Your task to perform on an android device: install app "Instagram" Image 0: 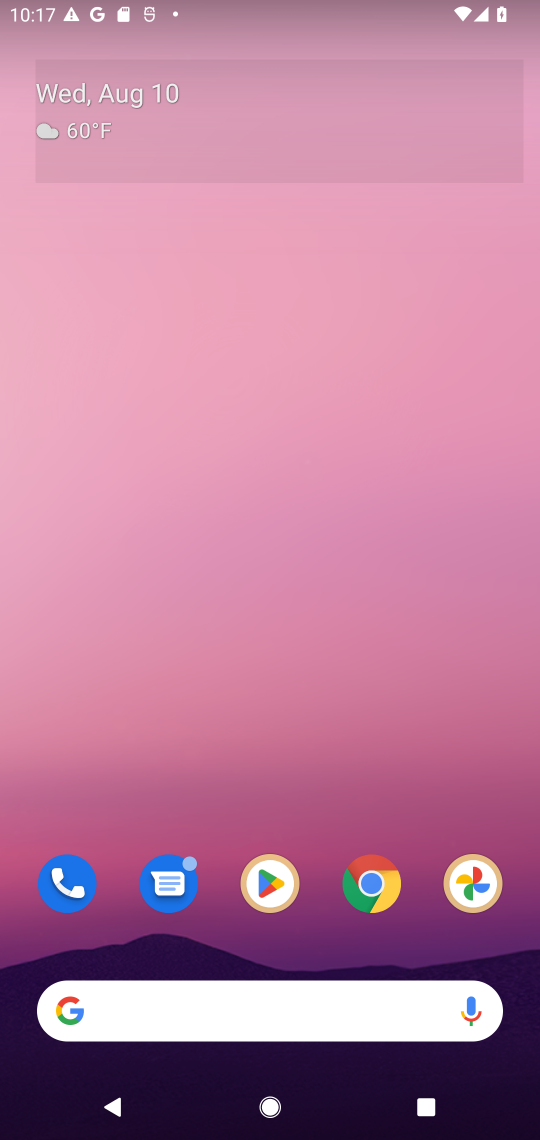
Step 0: drag from (400, 697) to (389, 95)
Your task to perform on an android device: install app "Instagram" Image 1: 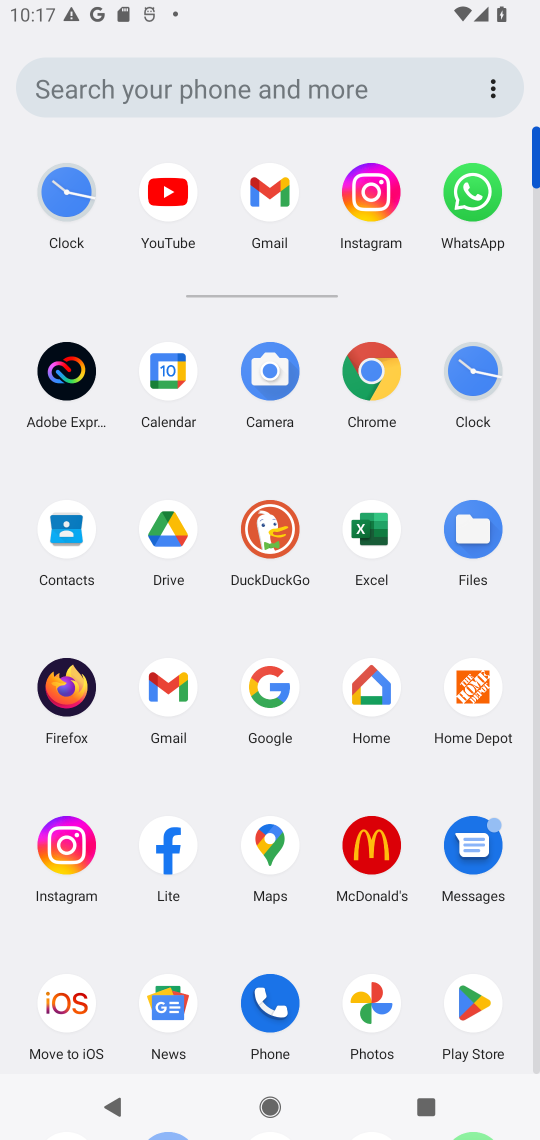
Step 1: click (475, 1004)
Your task to perform on an android device: install app "Instagram" Image 2: 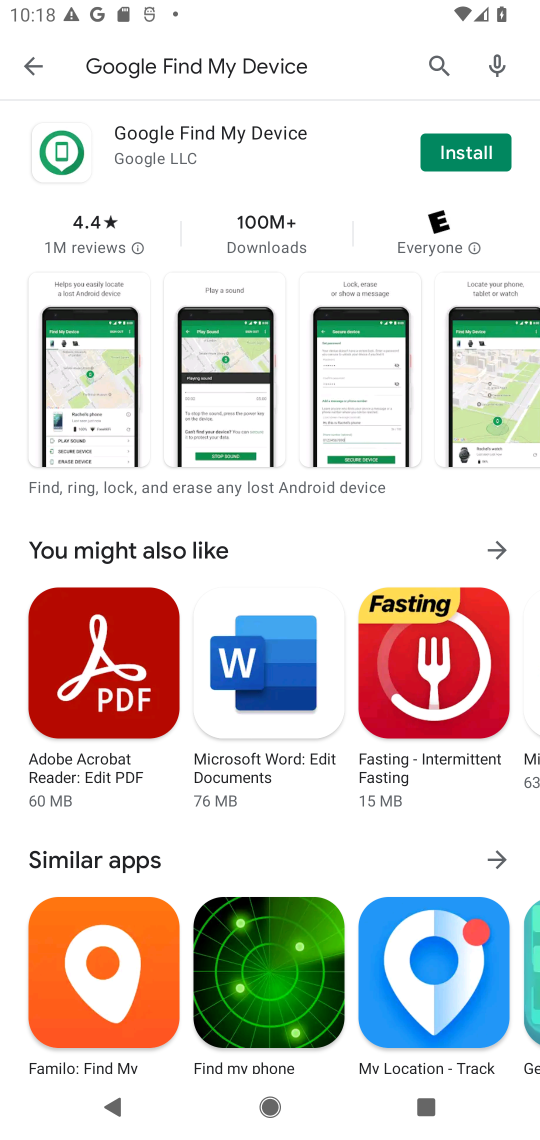
Step 2: click (435, 55)
Your task to perform on an android device: install app "Instagram" Image 3: 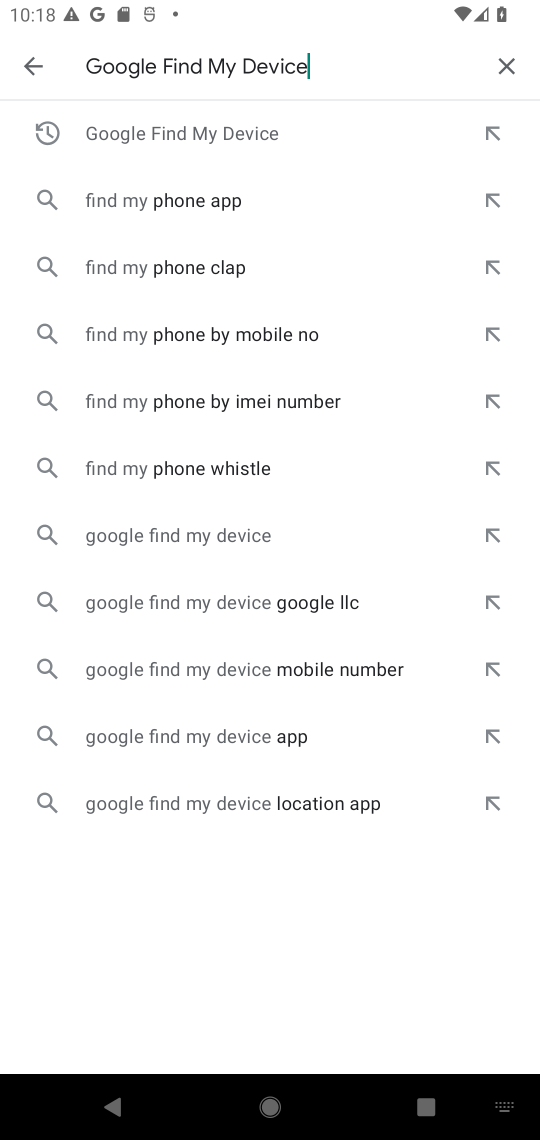
Step 3: click (496, 56)
Your task to perform on an android device: install app "Instagram" Image 4: 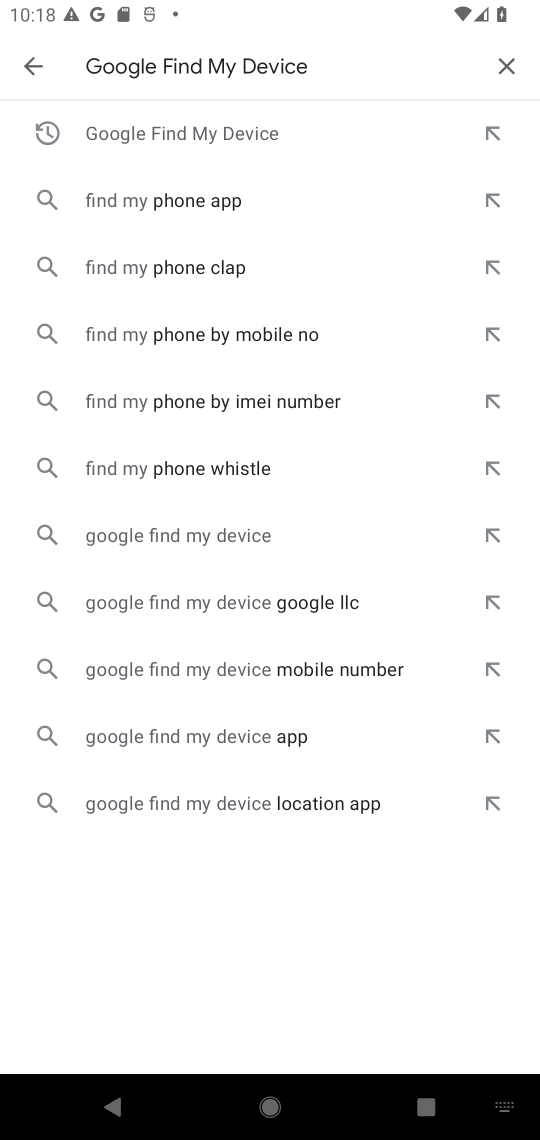
Step 4: click (504, 62)
Your task to perform on an android device: install app "Instagram" Image 5: 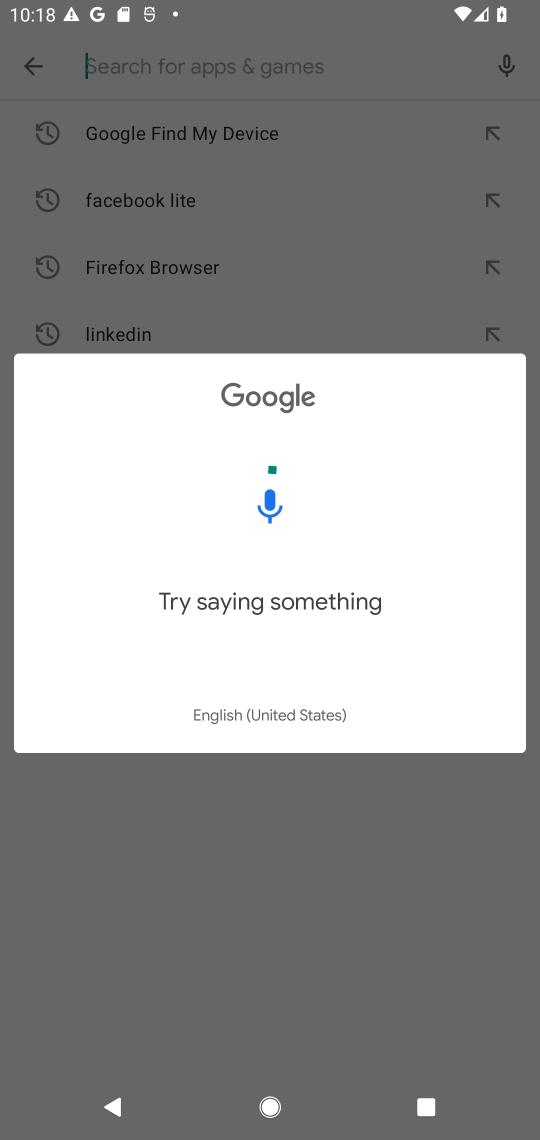
Step 5: press back button
Your task to perform on an android device: install app "Instagram" Image 6: 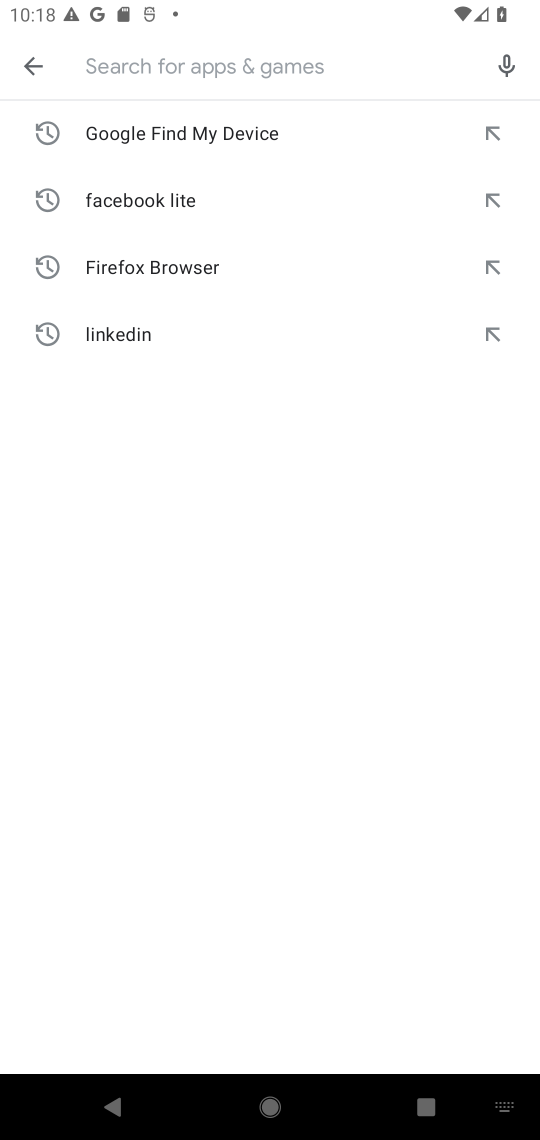
Step 6: type "instagram"
Your task to perform on an android device: install app "Instagram" Image 7: 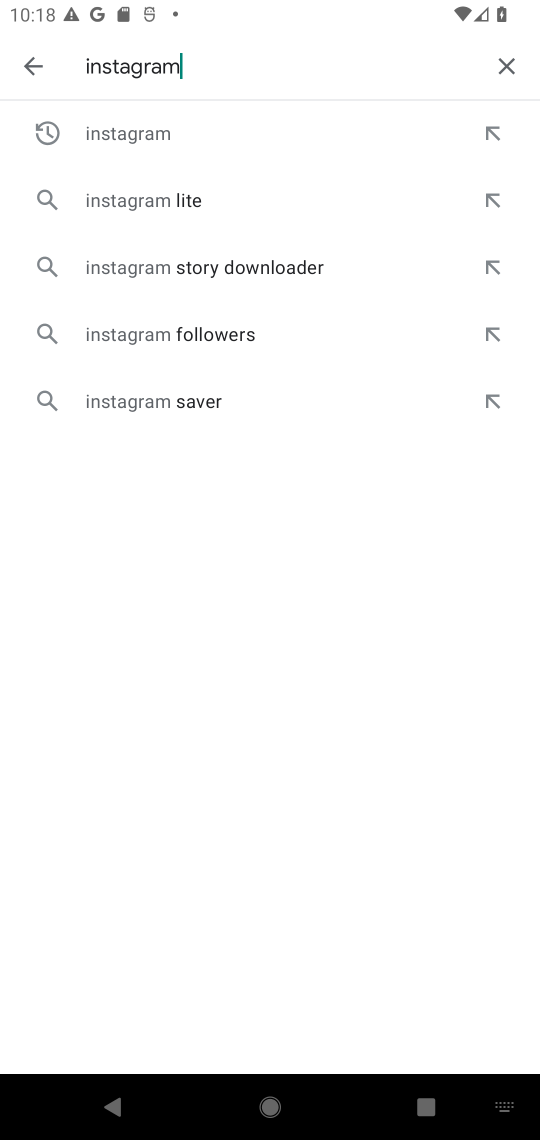
Step 7: click (138, 123)
Your task to perform on an android device: install app "Instagram" Image 8: 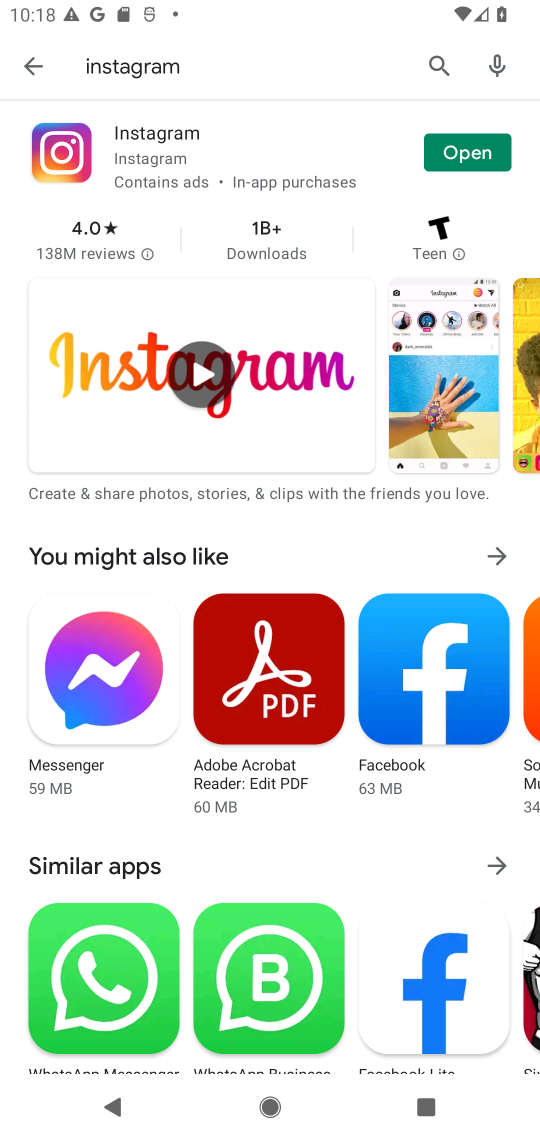
Step 8: task complete